Your task to perform on an android device: uninstall "Google Pay: Save, Pay, Manage" Image 0: 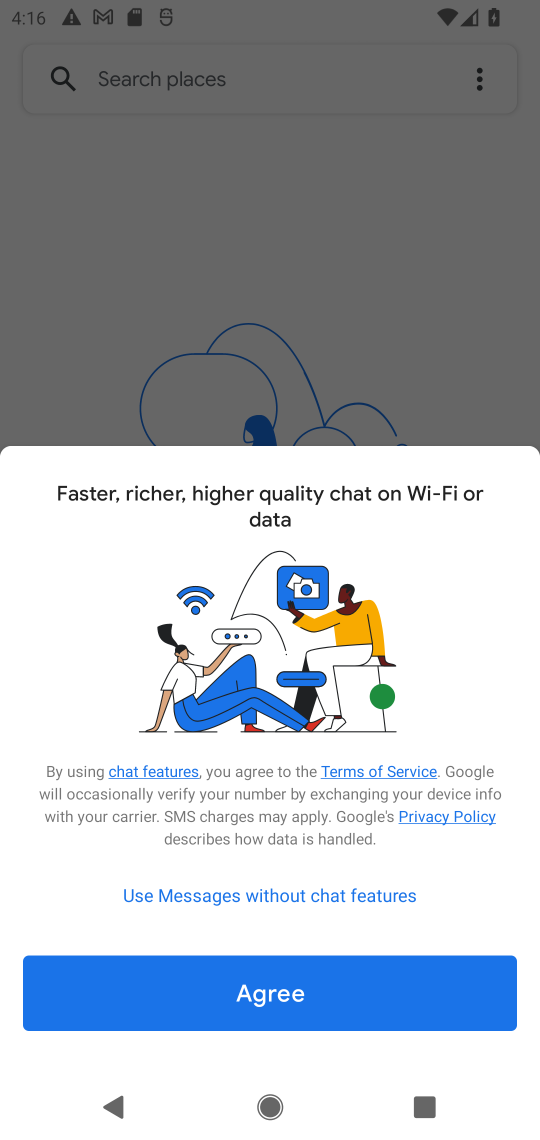
Step 0: press home button
Your task to perform on an android device: uninstall "Google Pay: Save, Pay, Manage" Image 1: 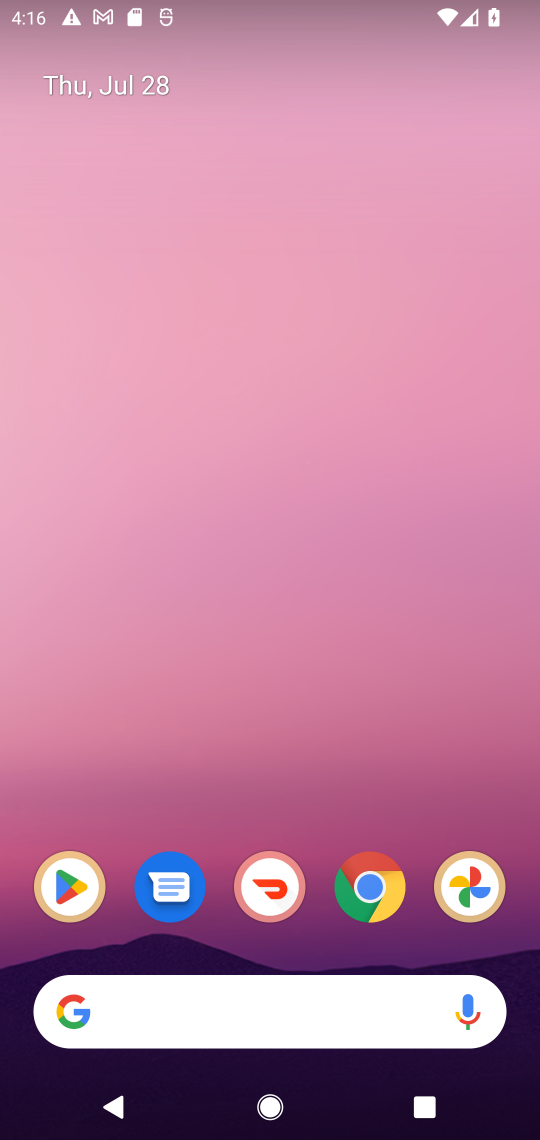
Step 1: click (78, 866)
Your task to perform on an android device: uninstall "Google Pay: Save, Pay, Manage" Image 2: 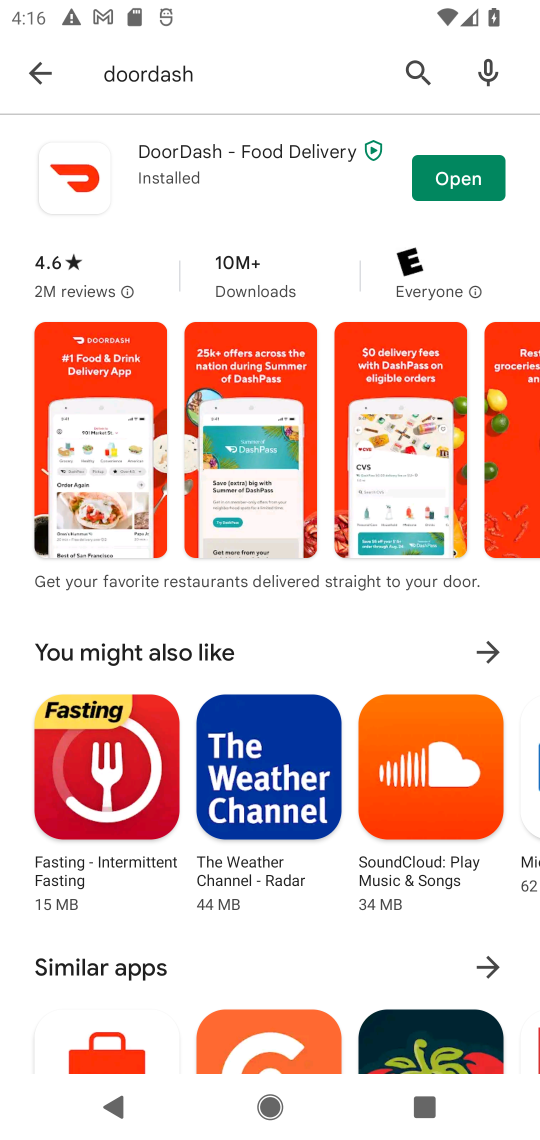
Step 2: click (37, 76)
Your task to perform on an android device: uninstall "Google Pay: Save, Pay, Manage" Image 3: 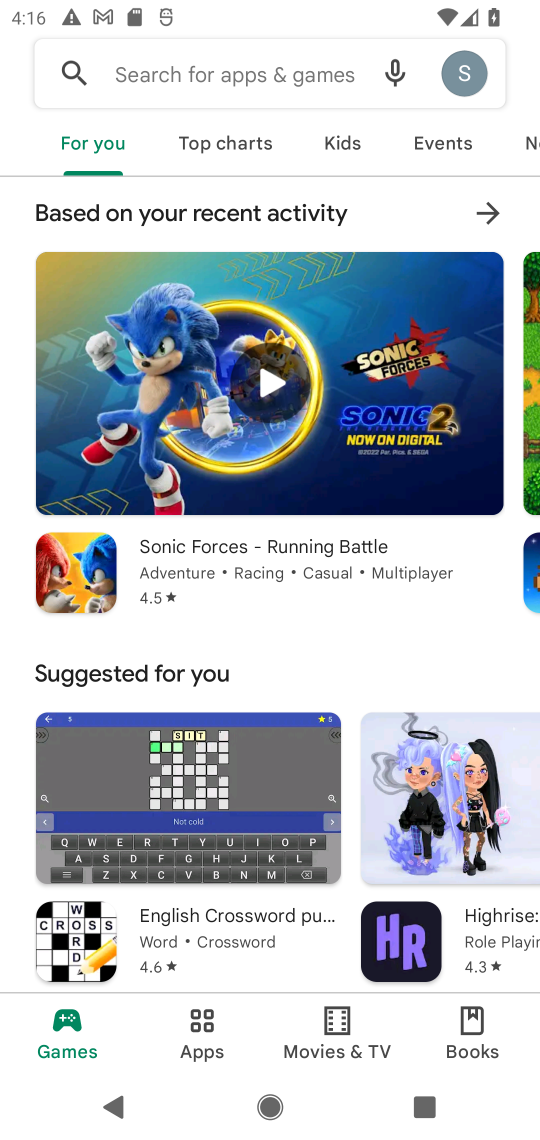
Step 3: click (188, 75)
Your task to perform on an android device: uninstall "Google Pay: Save, Pay, Manage" Image 4: 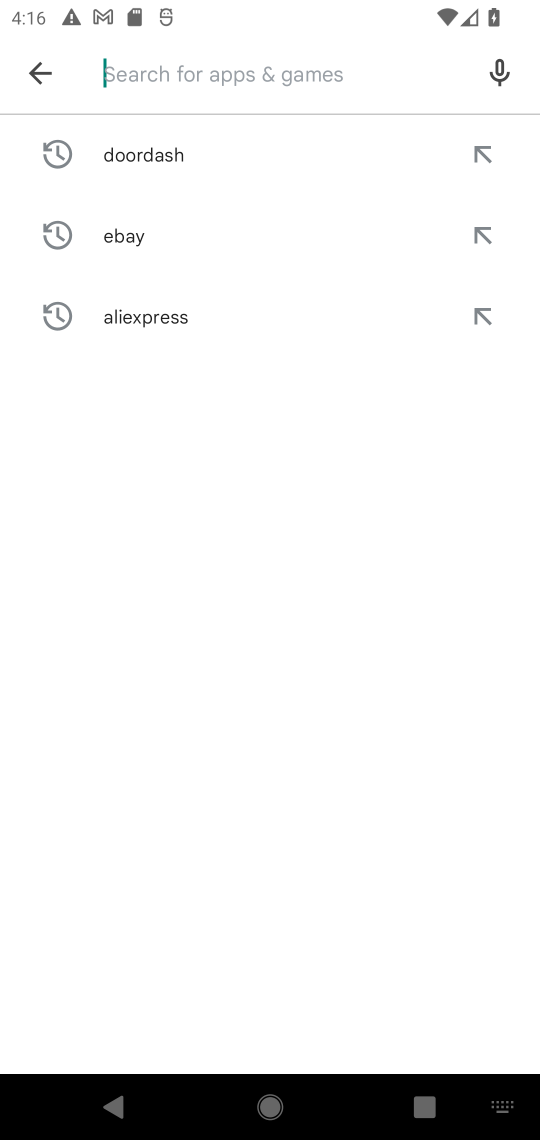
Step 4: type "Google Pay "
Your task to perform on an android device: uninstall "Google Pay: Save, Pay, Manage" Image 5: 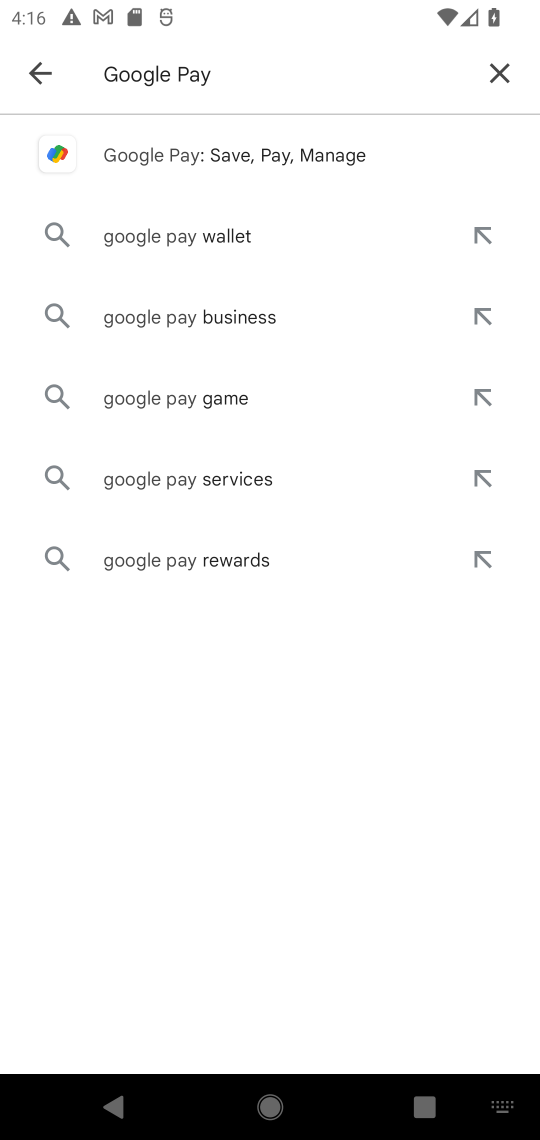
Step 5: click (230, 171)
Your task to perform on an android device: uninstall "Google Pay: Save, Pay, Manage" Image 6: 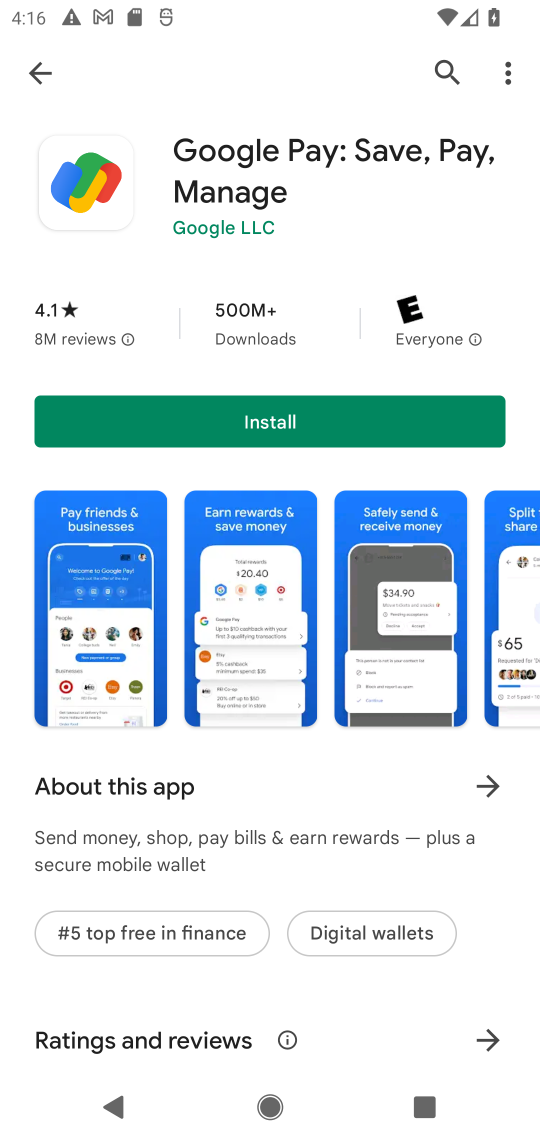
Step 6: task complete